Your task to perform on an android device: What's the weather? Image 0: 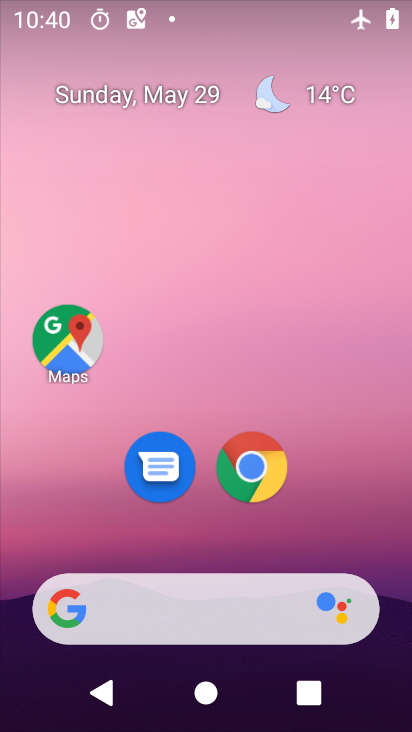
Step 0: drag from (192, 554) to (175, 291)
Your task to perform on an android device: What's the weather? Image 1: 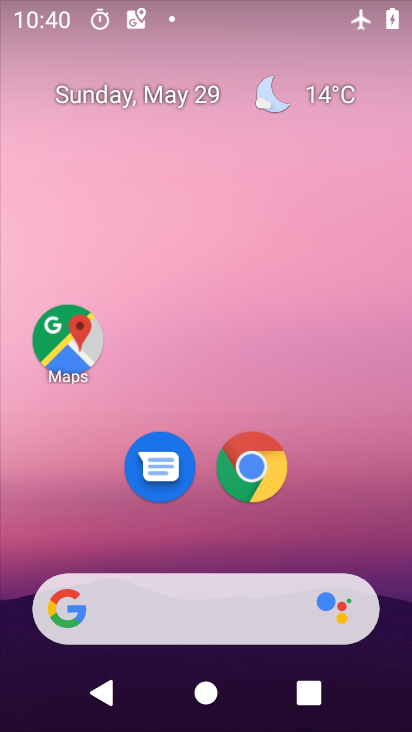
Step 1: drag from (193, 552) to (184, 125)
Your task to perform on an android device: What's the weather? Image 2: 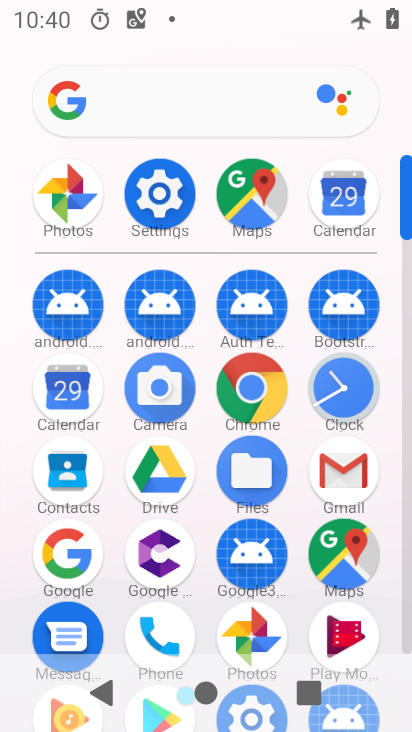
Step 2: click (80, 564)
Your task to perform on an android device: What's the weather? Image 3: 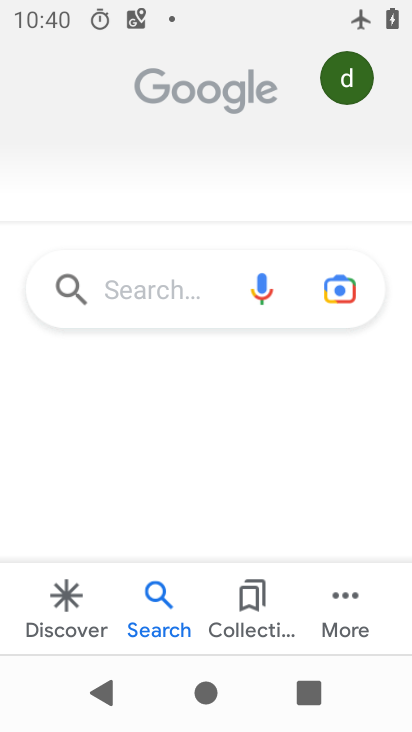
Step 3: click (161, 296)
Your task to perform on an android device: What's the weather? Image 4: 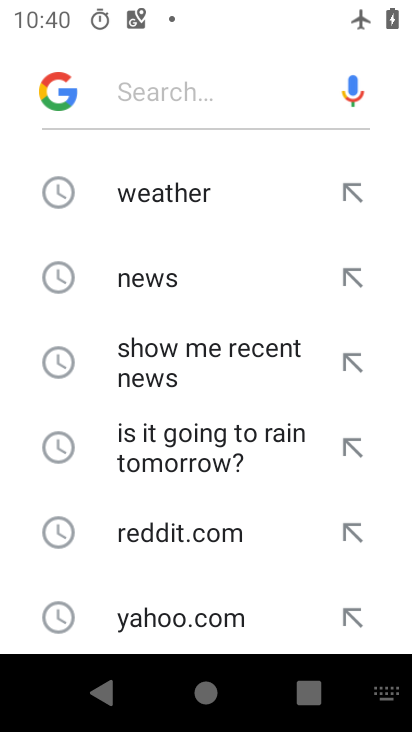
Step 4: click (199, 201)
Your task to perform on an android device: What's the weather? Image 5: 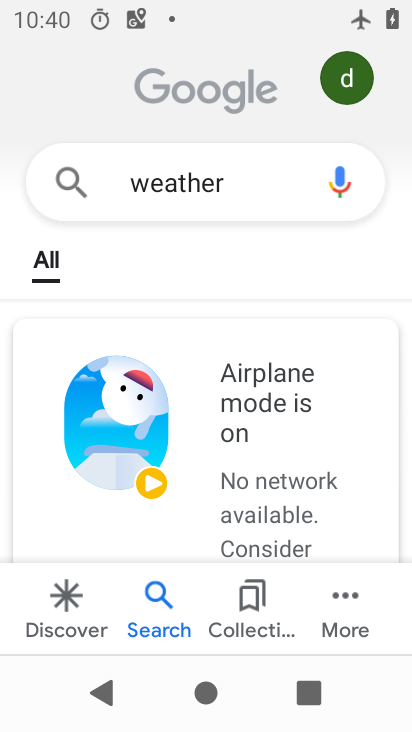
Step 5: task complete